Your task to perform on an android device: find snoozed emails in the gmail app Image 0: 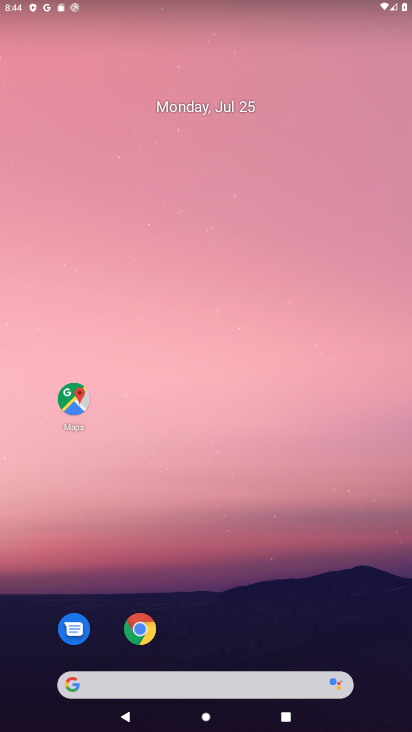
Step 0: drag from (229, 646) to (273, 140)
Your task to perform on an android device: find snoozed emails in the gmail app Image 1: 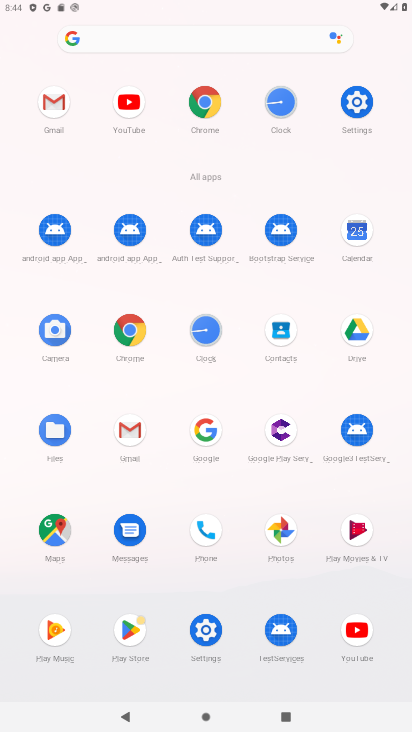
Step 1: click (50, 90)
Your task to perform on an android device: find snoozed emails in the gmail app Image 2: 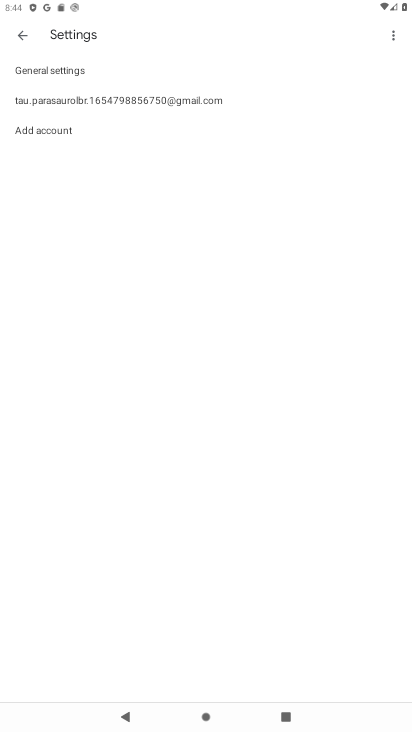
Step 2: click (21, 40)
Your task to perform on an android device: find snoozed emails in the gmail app Image 3: 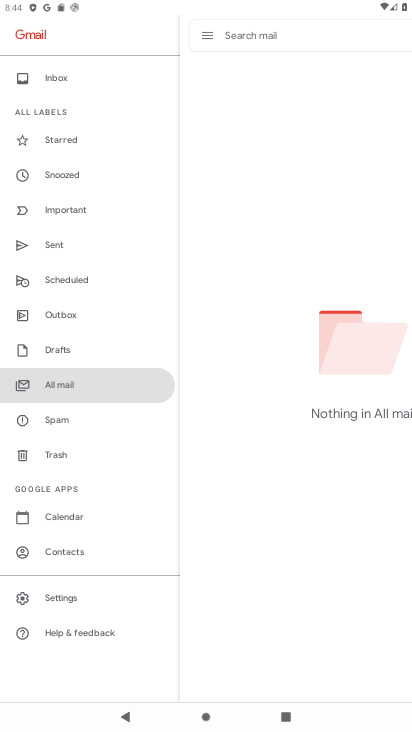
Step 3: click (81, 187)
Your task to perform on an android device: find snoozed emails in the gmail app Image 4: 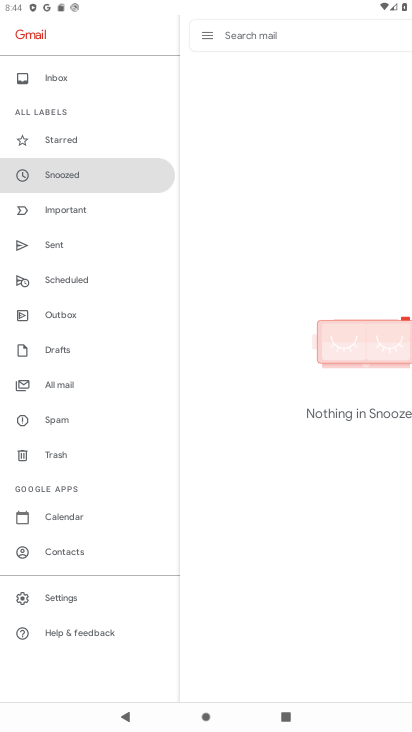
Step 4: task complete